Your task to perform on an android device: Search for Italian restaurants on Maps Image 0: 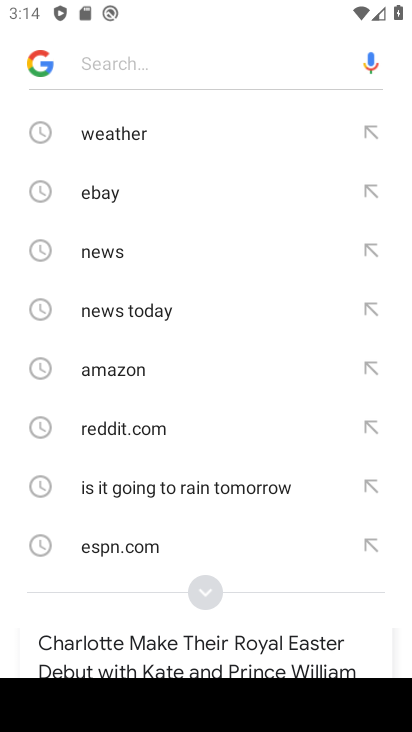
Step 0: press home button
Your task to perform on an android device: Search for Italian restaurants on Maps Image 1: 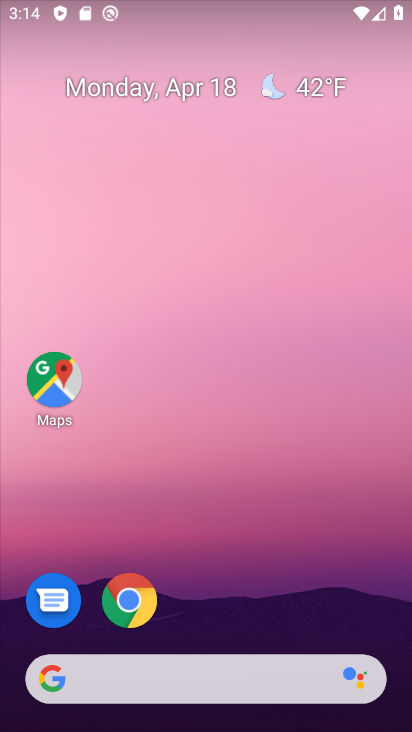
Step 1: drag from (155, 675) to (260, 165)
Your task to perform on an android device: Search for Italian restaurants on Maps Image 2: 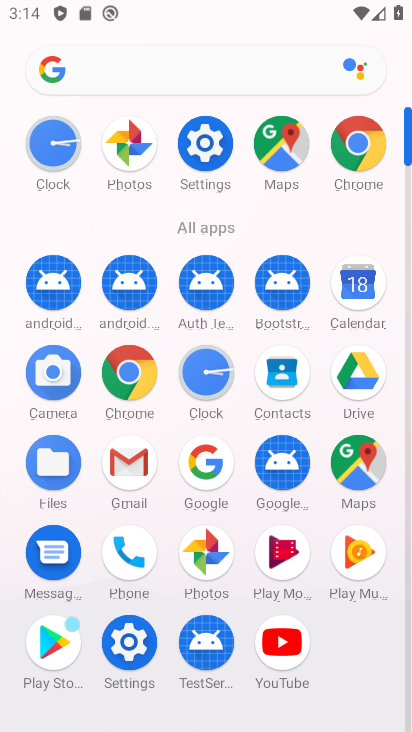
Step 2: click (296, 156)
Your task to perform on an android device: Search for Italian restaurants on Maps Image 3: 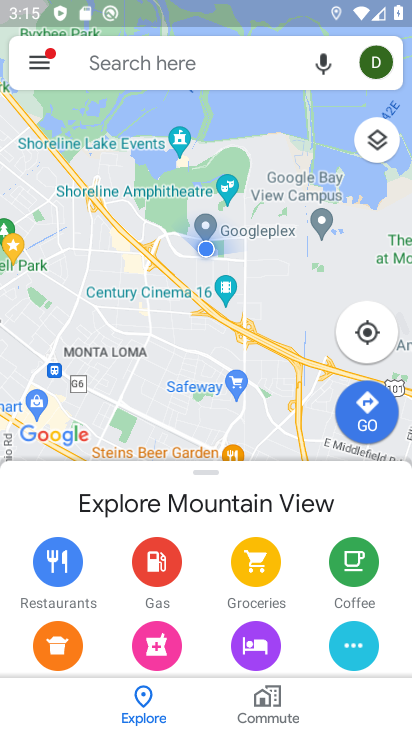
Step 3: click (223, 65)
Your task to perform on an android device: Search for Italian restaurants on Maps Image 4: 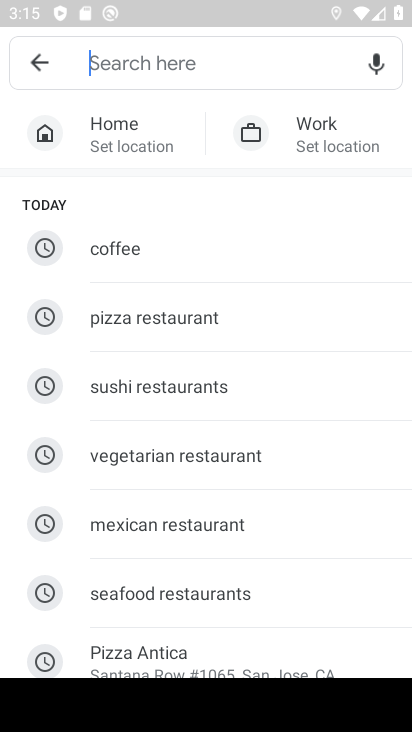
Step 4: drag from (170, 610) to (298, 74)
Your task to perform on an android device: Search for Italian restaurants on Maps Image 5: 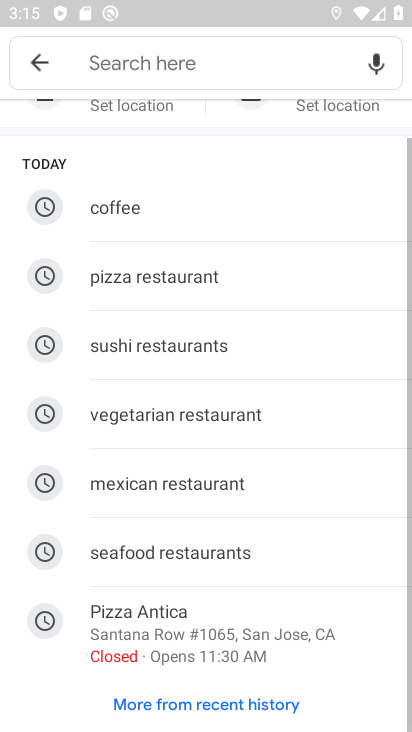
Step 5: click (147, 45)
Your task to perform on an android device: Search for Italian restaurants on Maps Image 6: 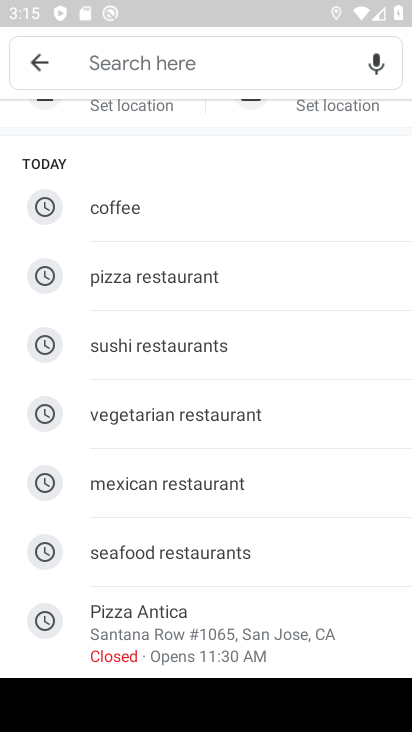
Step 6: type "italian restaurants"
Your task to perform on an android device: Search for Italian restaurants on Maps Image 7: 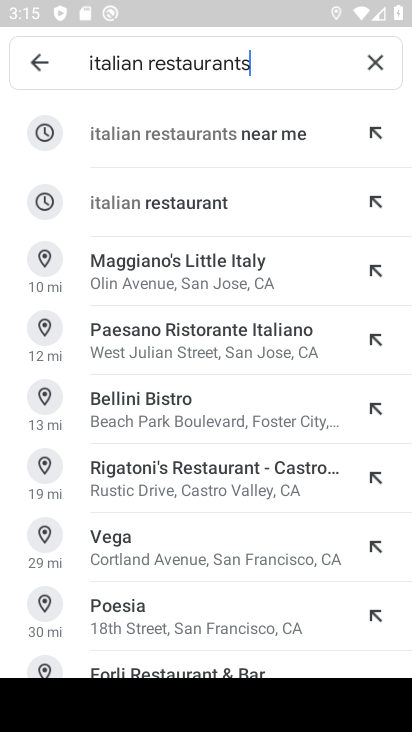
Step 7: click (197, 213)
Your task to perform on an android device: Search for Italian restaurants on Maps Image 8: 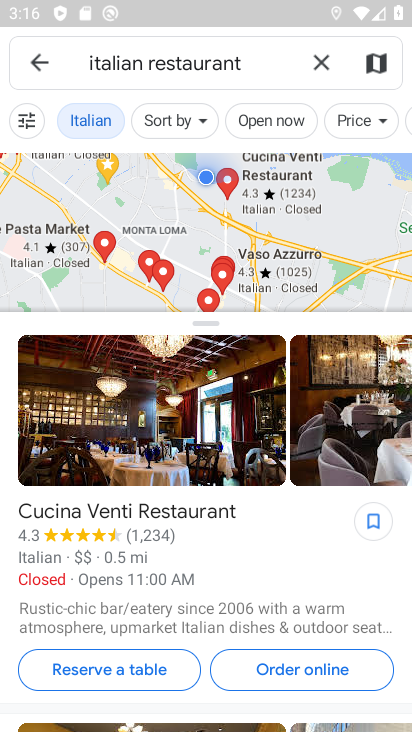
Step 8: task complete